Your task to perform on an android device: turn on javascript in the chrome app Image 0: 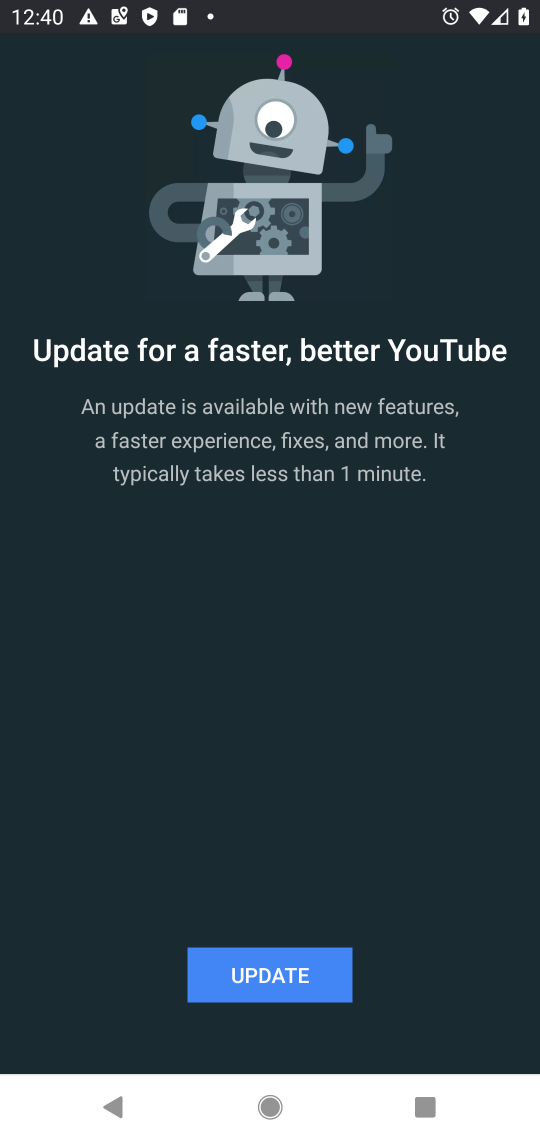
Step 0: press home button
Your task to perform on an android device: turn on javascript in the chrome app Image 1: 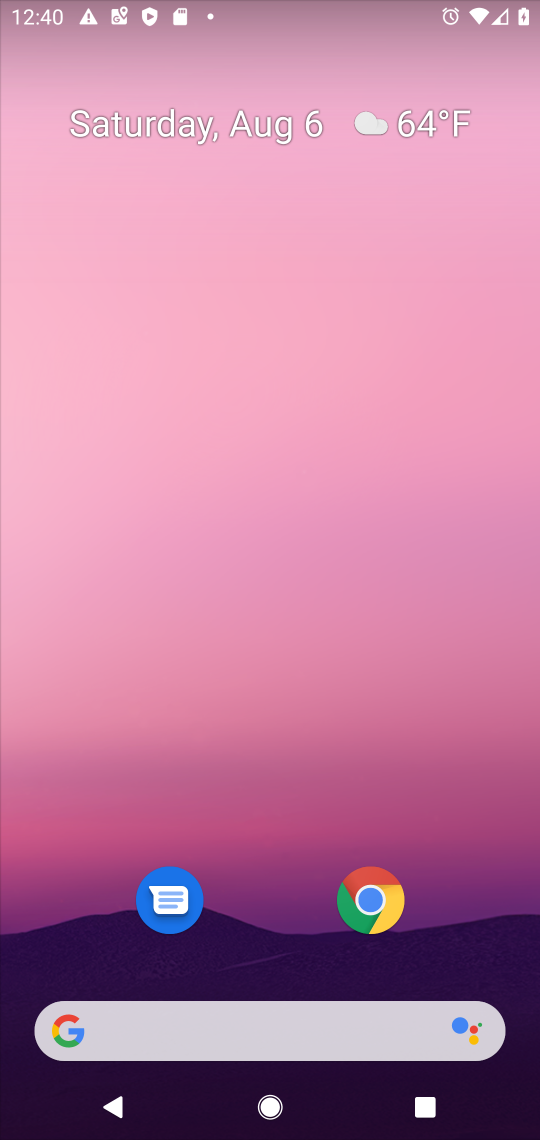
Step 1: click (363, 888)
Your task to perform on an android device: turn on javascript in the chrome app Image 2: 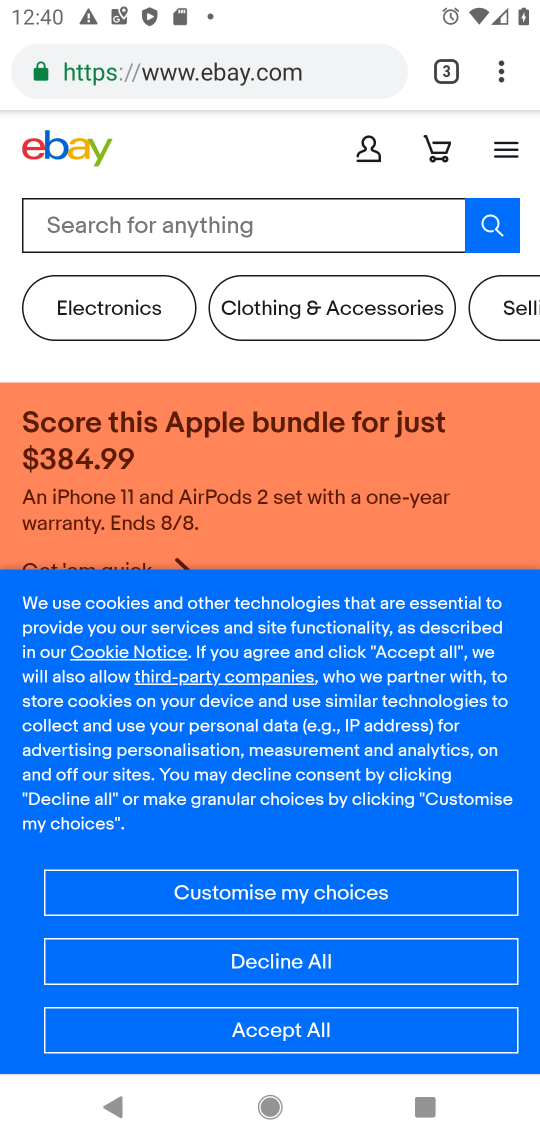
Step 2: click (498, 79)
Your task to perform on an android device: turn on javascript in the chrome app Image 3: 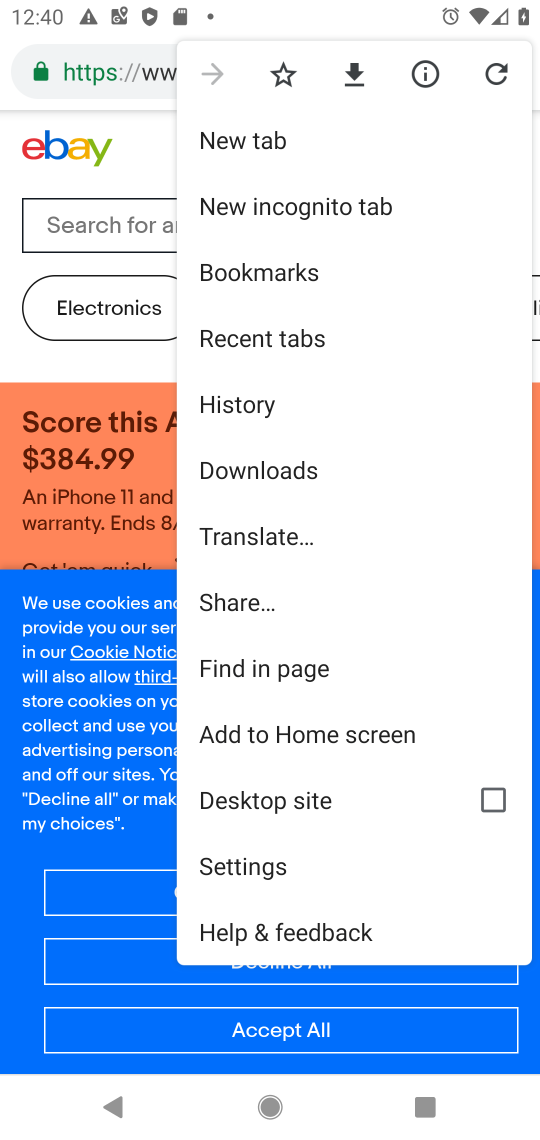
Step 3: click (222, 856)
Your task to perform on an android device: turn on javascript in the chrome app Image 4: 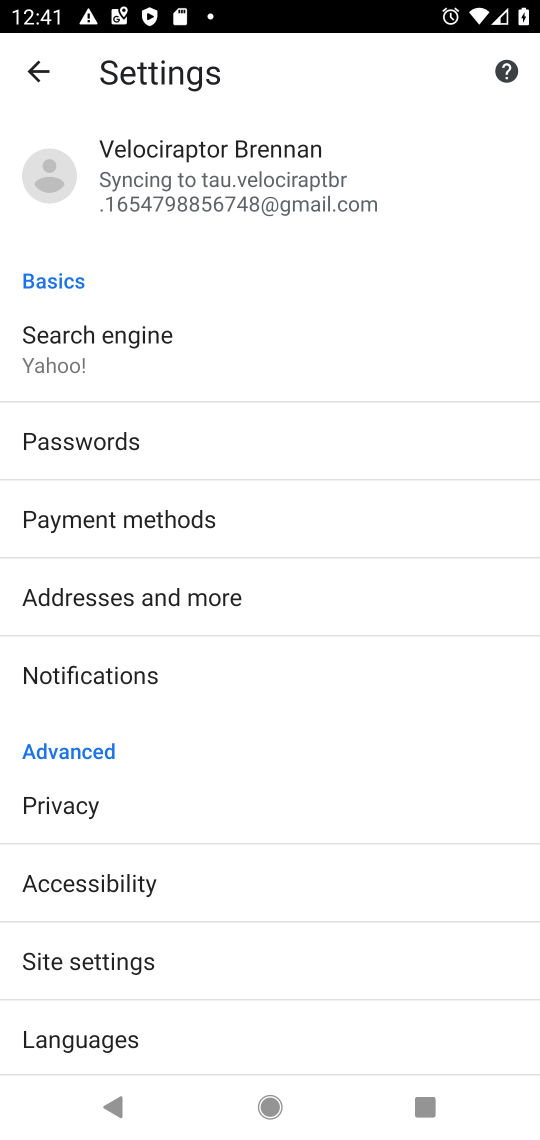
Step 4: drag from (125, 963) to (105, 519)
Your task to perform on an android device: turn on javascript in the chrome app Image 5: 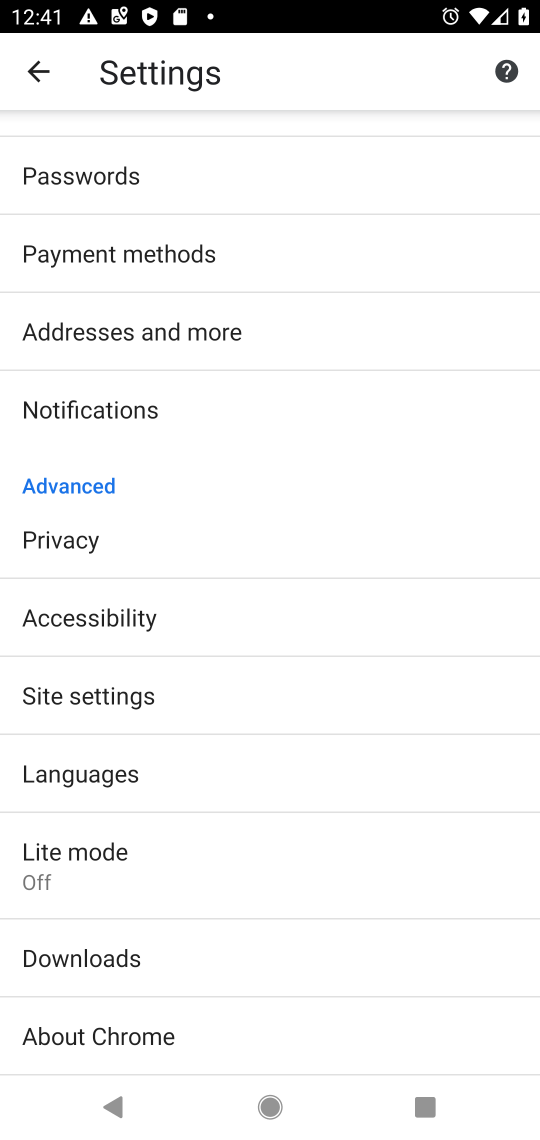
Step 5: click (111, 694)
Your task to perform on an android device: turn on javascript in the chrome app Image 6: 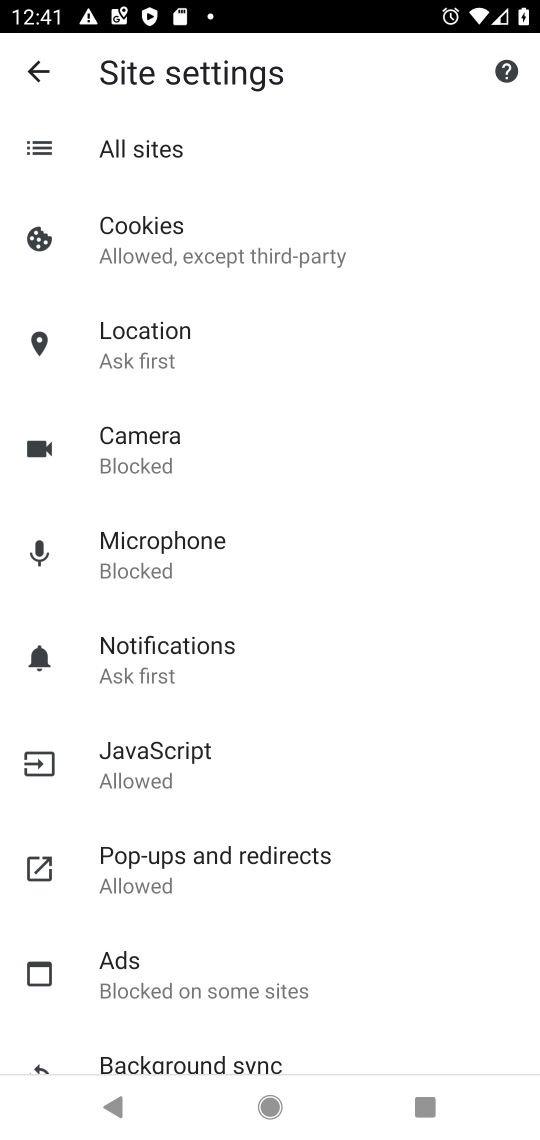
Step 6: click (126, 764)
Your task to perform on an android device: turn on javascript in the chrome app Image 7: 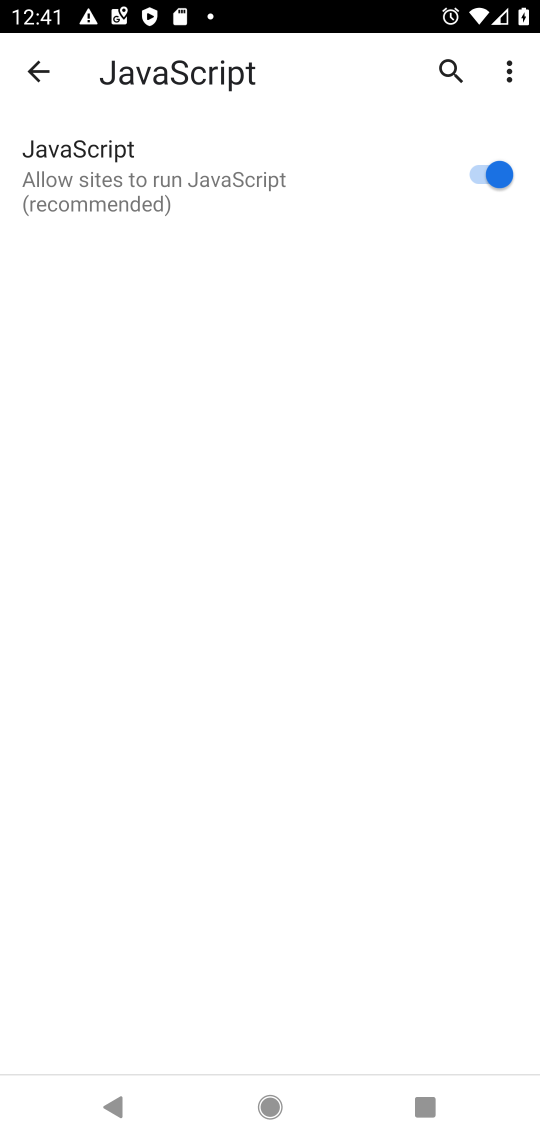
Step 7: task complete